Your task to perform on an android device: snooze an email in the gmail app Image 0: 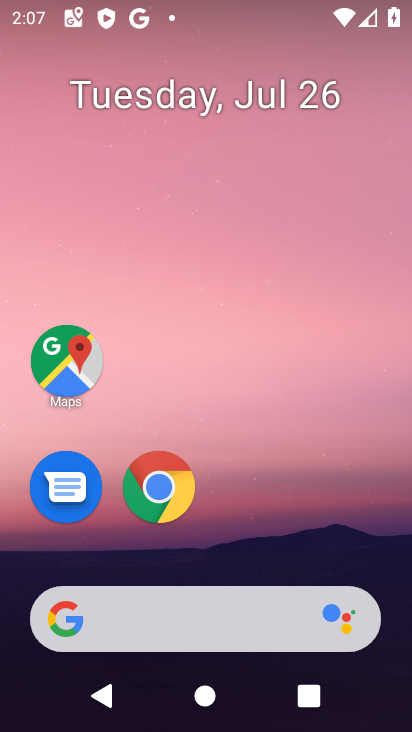
Step 0: drag from (235, 651) to (198, 121)
Your task to perform on an android device: snooze an email in the gmail app Image 1: 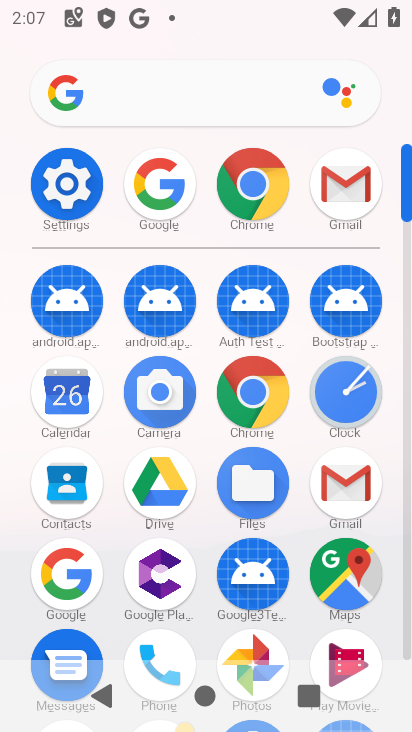
Step 1: click (358, 503)
Your task to perform on an android device: snooze an email in the gmail app Image 2: 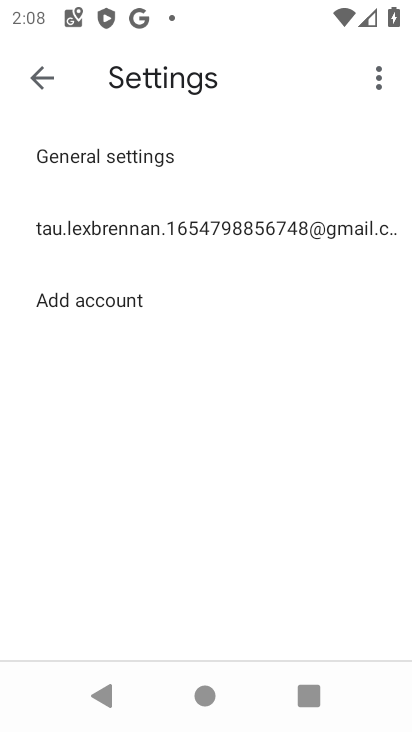
Step 2: click (39, 84)
Your task to perform on an android device: snooze an email in the gmail app Image 3: 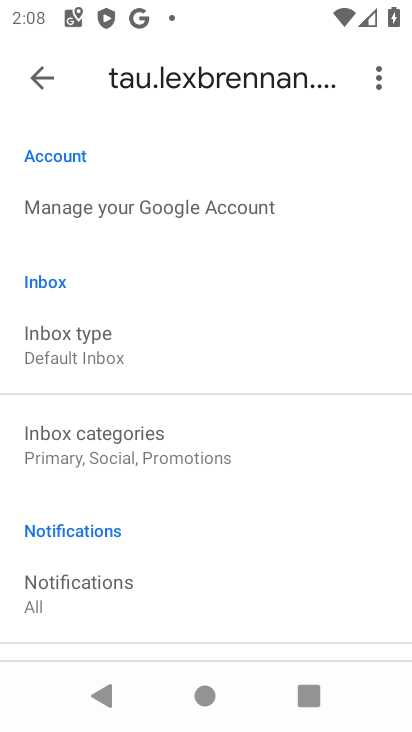
Step 3: click (42, 92)
Your task to perform on an android device: snooze an email in the gmail app Image 4: 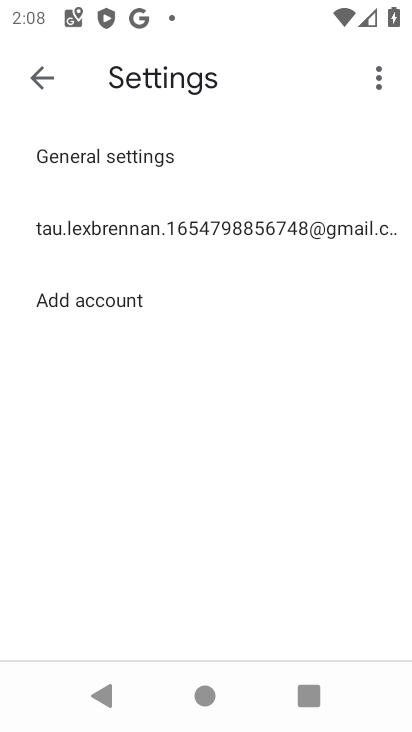
Step 4: click (46, 87)
Your task to perform on an android device: snooze an email in the gmail app Image 5: 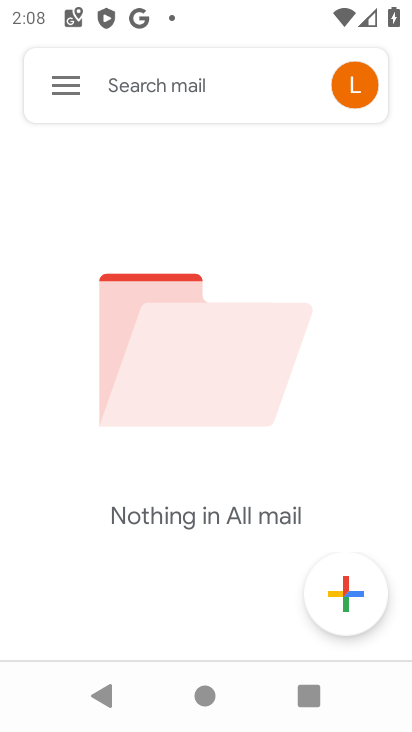
Step 5: click (59, 90)
Your task to perform on an android device: snooze an email in the gmail app Image 6: 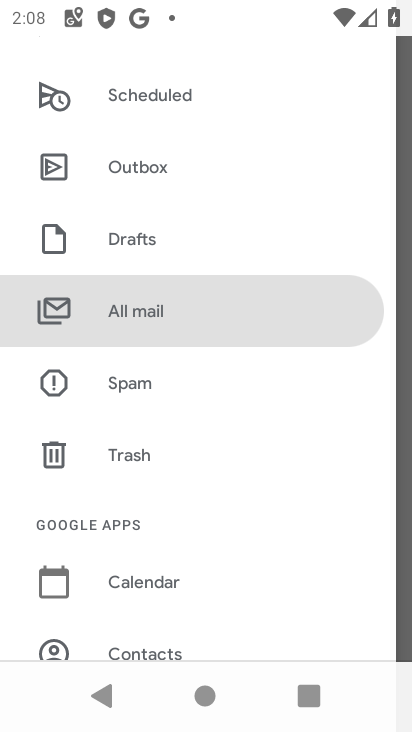
Step 6: click (161, 318)
Your task to perform on an android device: snooze an email in the gmail app Image 7: 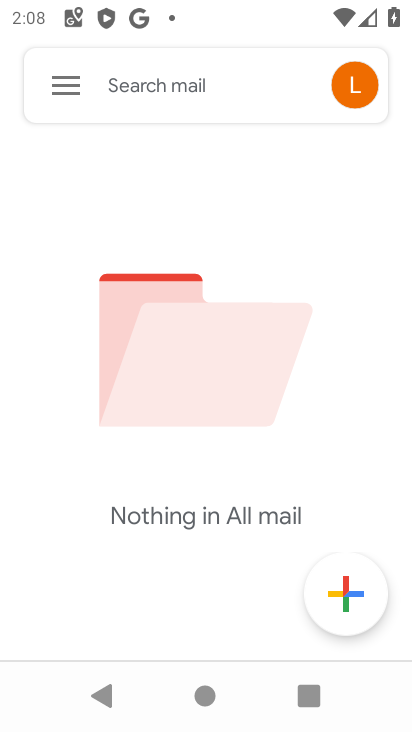
Step 7: task complete